Your task to perform on an android device: all mails in gmail Image 0: 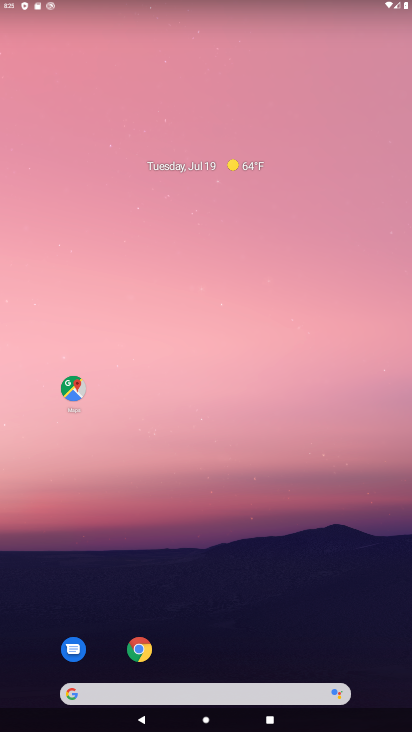
Step 0: drag from (216, 626) to (216, 96)
Your task to perform on an android device: all mails in gmail Image 1: 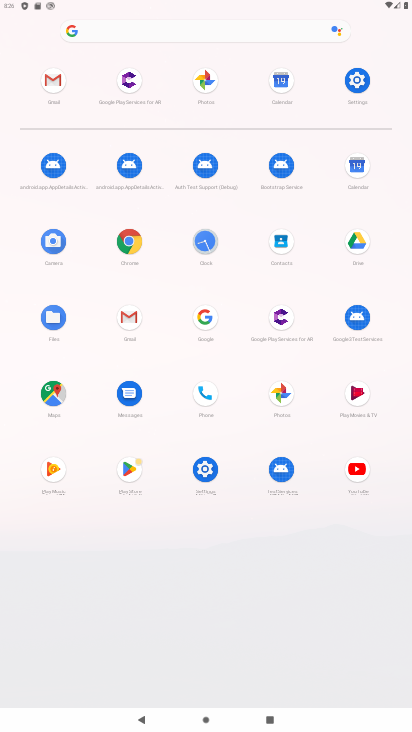
Step 1: click (128, 317)
Your task to perform on an android device: all mails in gmail Image 2: 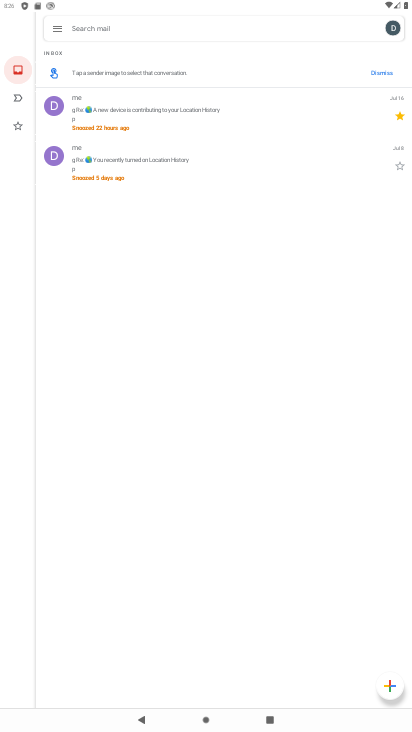
Step 2: click (54, 37)
Your task to perform on an android device: all mails in gmail Image 3: 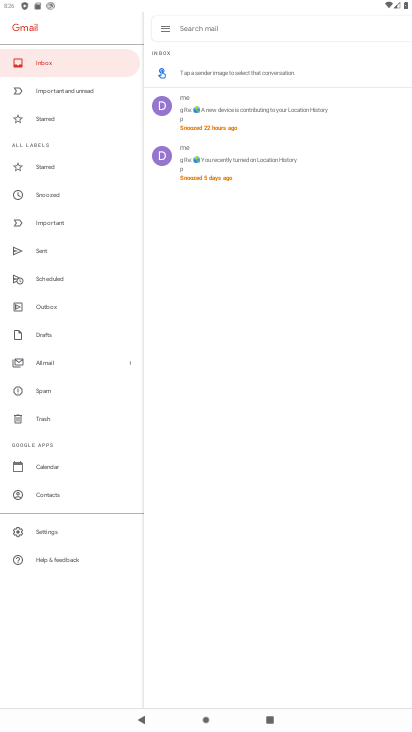
Step 3: click (64, 366)
Your task to perform on an android device: all mails in gmail Image 4: 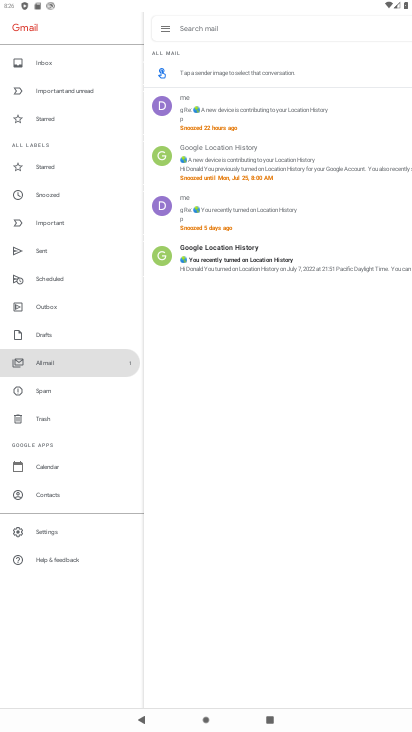
Step 4: task complete